Your task to perform on an android device: turn on the 24-hour format for clock Image 0: 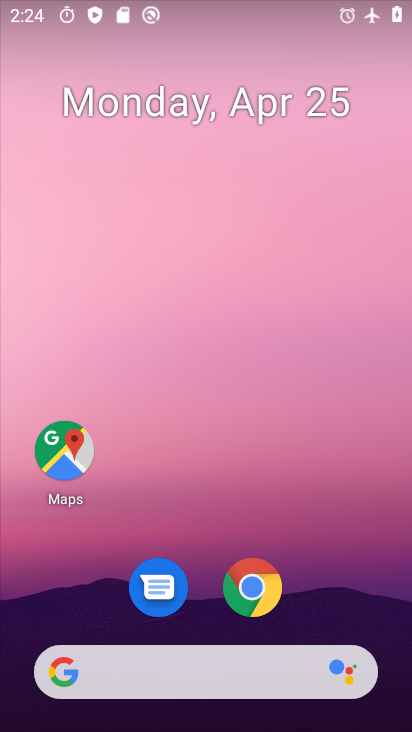
Step 0: drag from (320, 611) to (260, 124)
Your task to perform on an android device: turn on the 24-hour format for clock Image 1: 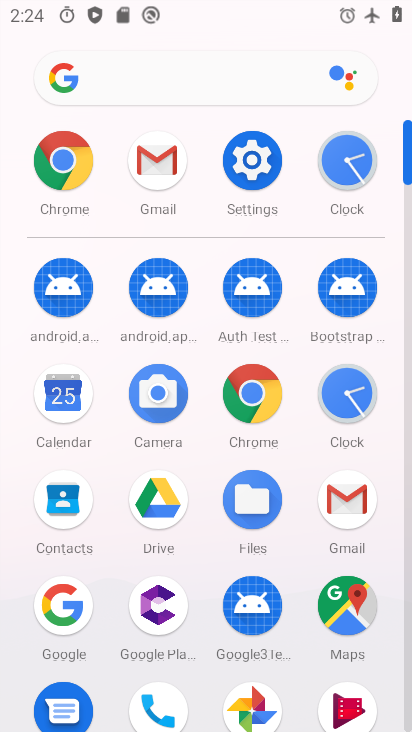
Step 1: click (348, 379)
Your task to perform on an android device: turn on the 24-hour format for clock Image 2: 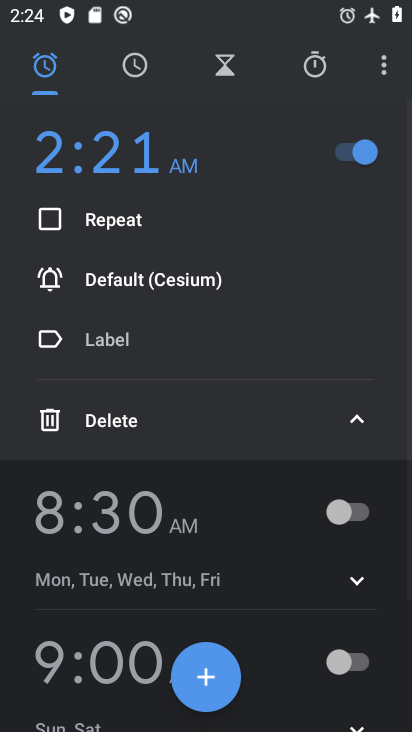
Step 2: drag from (386, 66) to (346, 111)
Your task to perform on an android device: turn on the 24-hour format for clock Image 3: 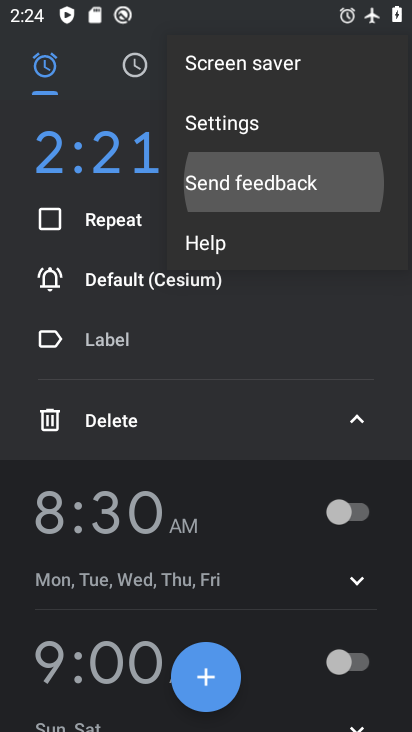
Step 3: click (383, 61)
Your task to perform on an android device: turn on the 24-hour format for clock Image 4: 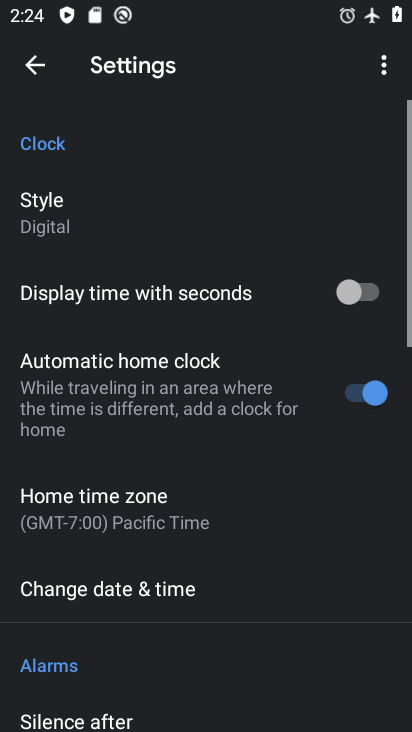
Step 4: drag from (245, 568) to (281, 10)
Your task to perform on an android device: turn on the 24-hour format for clock Image 5: 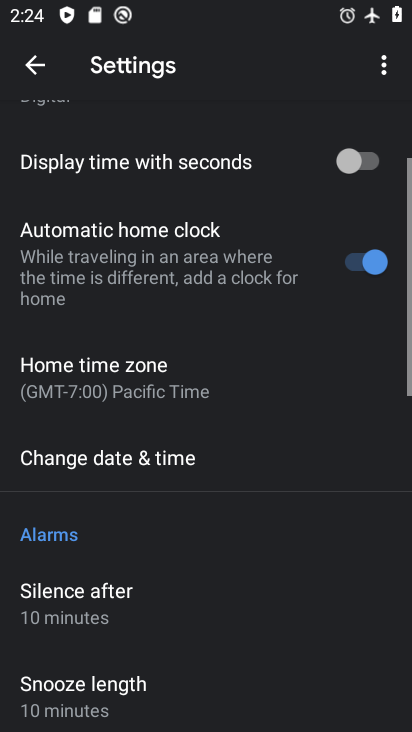
Step 5: drag from (230, 584) to (268, 117)
Your task to perform on an android device: turn on the 24-hour format for clock Image 6: 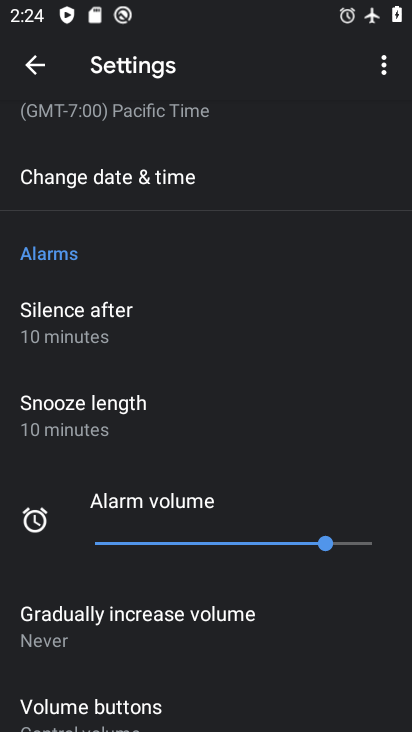
Step 6: drag from (210, 627) to (247, 122)
Your task to perform on an android device: turn on the 24-hour format for clock Image 7: 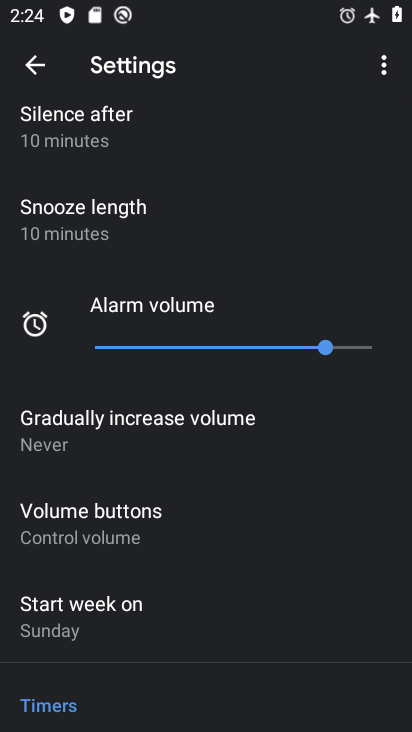
Step 7: drag from (211, 664) to (285, 152)
Your task to perform on an android device: turn on the 24-hour format for clock Image 8: 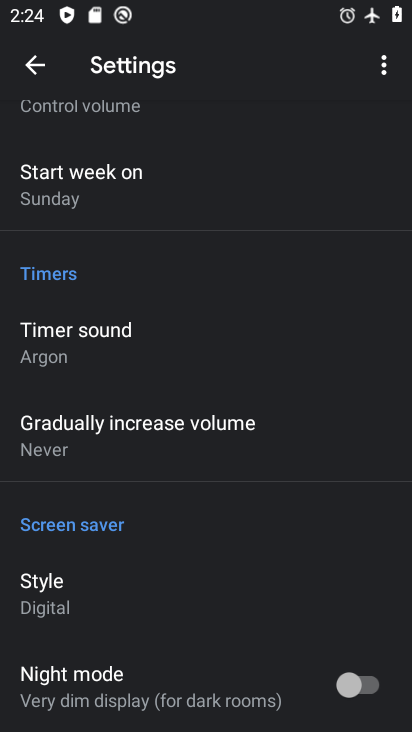
Step 8: drag from (257, 614) to (324, 150)
Your task to perform on an android device: turn on the 24-hour format for clock Image 9: 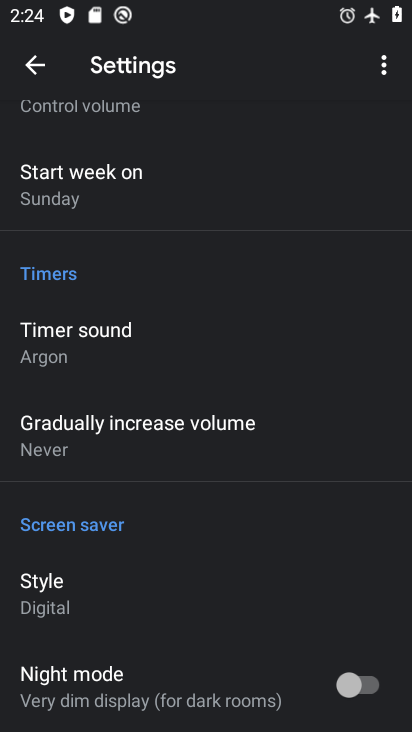
Step 9: drag from (224, 181) to (239, 627)
Your task to perform on an android device: turn on the 24-hour format for clock Image 10: 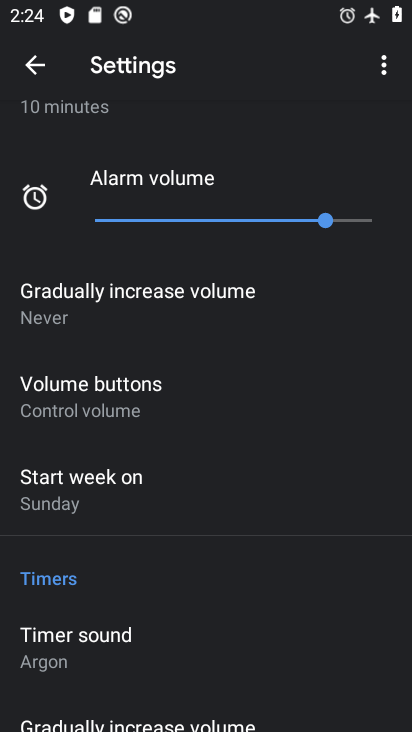
Step 10: drag from (295, 282) to (307, 621)
Your task to perform on an android device: turn on the 24-hour format for clock Image 11: 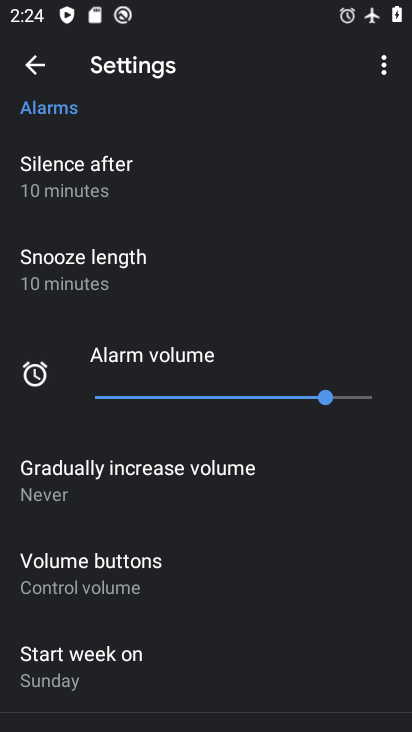
Step 11: drag from (187, 256) to (218, 675)
Your task to perform on an android device: turn on the 24-hour format for clock Image 12: 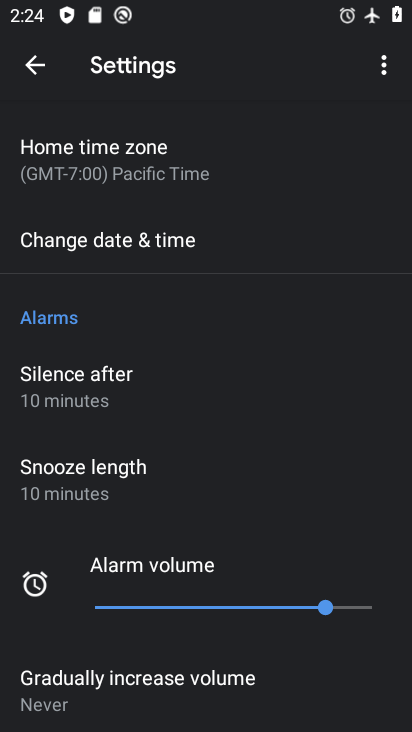
Step 12: click (166, 246)
Your task to perform on an android device: turn on the 24-hour format for clock Image 13: 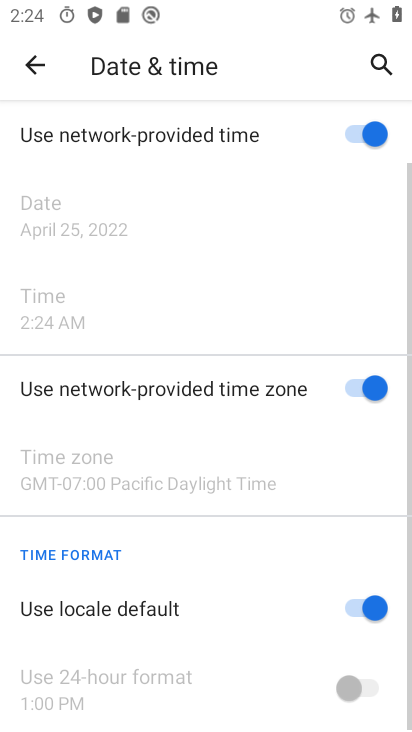
Step 13: drag from (232, 660) to (252, 56)
Your task to perform on an android device: turn on the 24-hour format for clock Image 14: 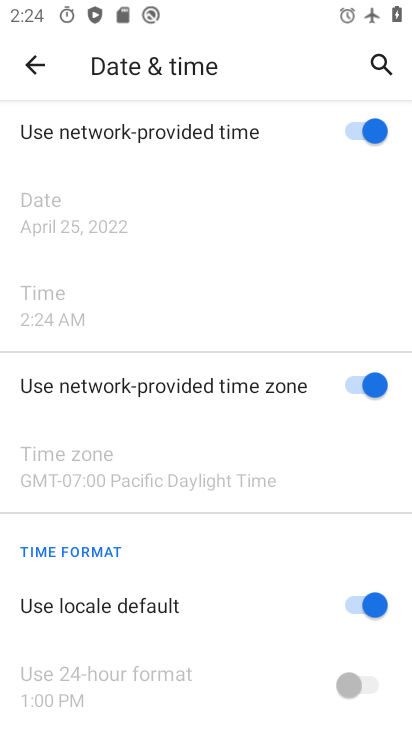
Step 14: click (377, 595)
Your task to perform on an android device: turn on the 24-hour format for clock Image 15: 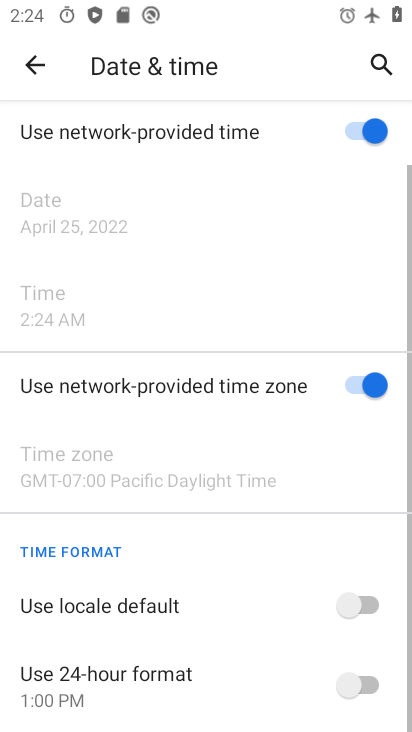
Step 15: click (364, 686)
Your task to perform on an android device: turn on the 24-hour format for clock Image 16: 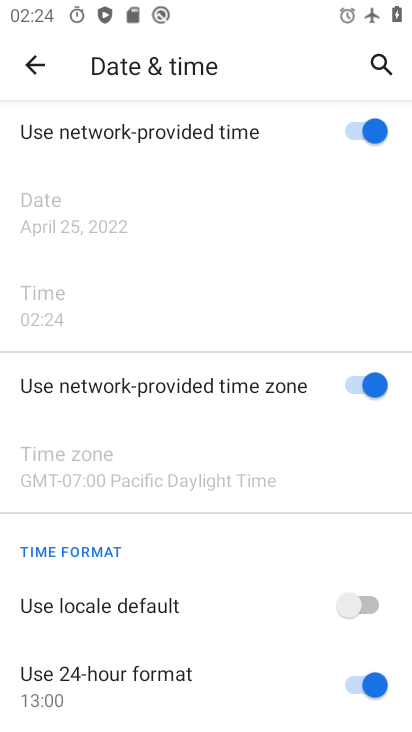
Step 16: task complete